Your task to perform on an android device: turn on the 24-hour format for clock Image 0: 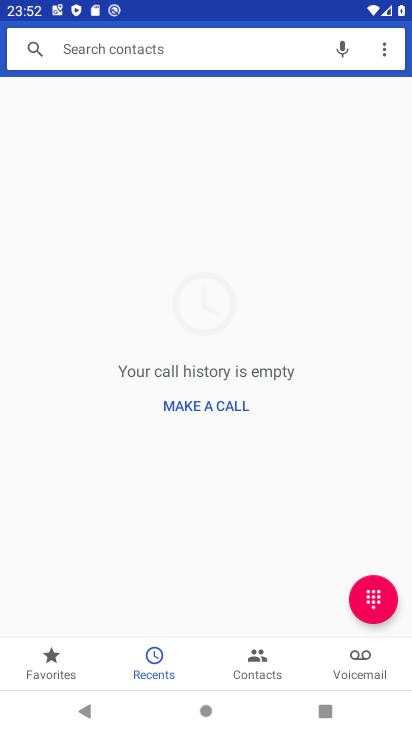
Step 0: press home button
Your task to perform on an android device: turn on the 24-hour format for clock Image 1: 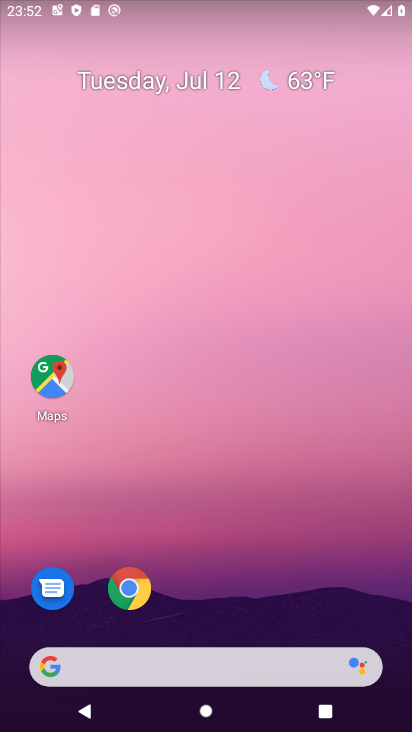
Step 1: drag from (68, 664) to (212, 5)
Your task to perform on an android device: turn on the 24-hour format for clock Image 2: 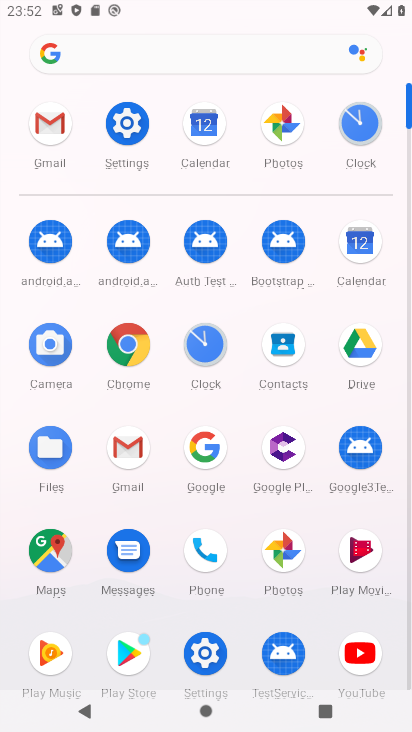
Step 2: click (195, 647)
Your task to perform on an android device: turn on the 24-hour format for clock Image 3: 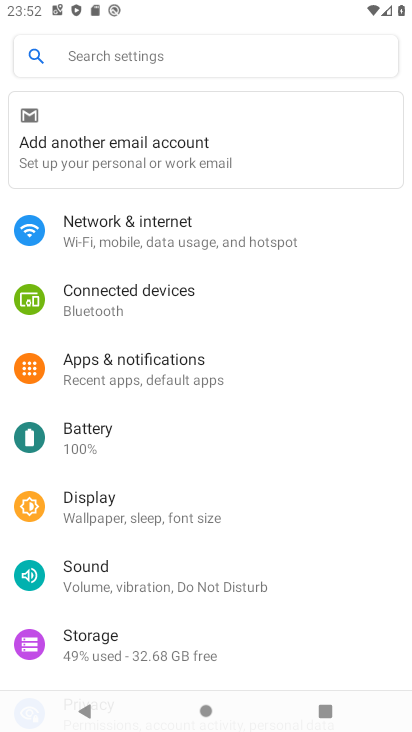
Step 3: click (131, 369)
Your task to perform on an android device: turn on the 24-hour format for clock Image 4: 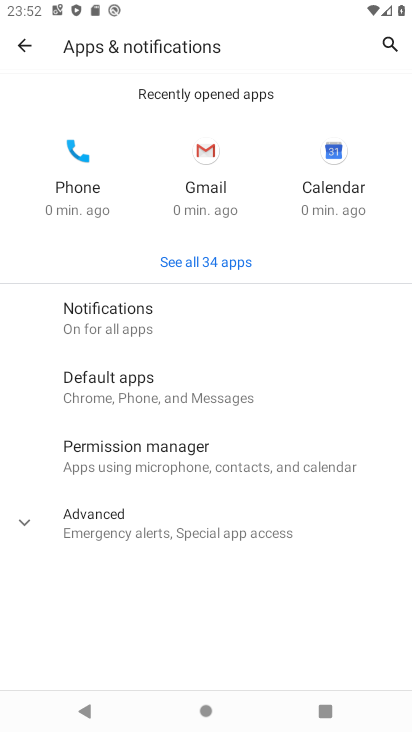
Step 4: click (24, 41)
Your task to perform on an android device: turn on the 24-hour format for clock Image 5: 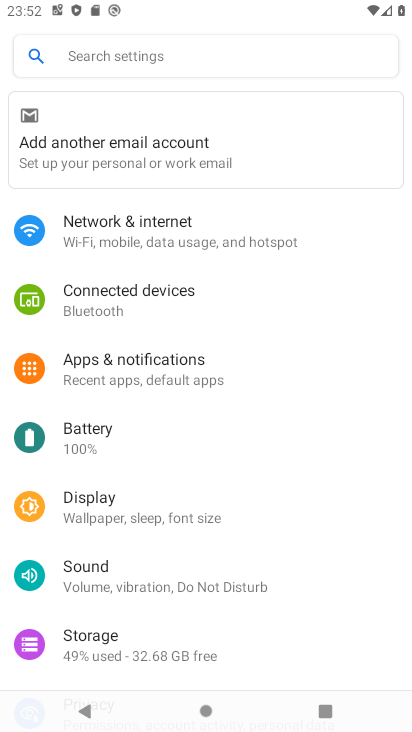
Step 5: task complete